Your task to perform on an android device: stop showing notifications on the lock screen Image 0: 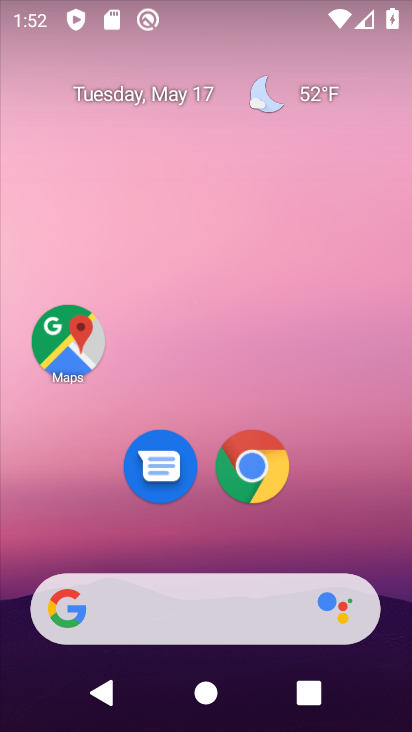
Step 0: drag from (87, 568) to (188, 159)
Your task to perform on an android device: stop showing notifications on the lock screen Image 1: 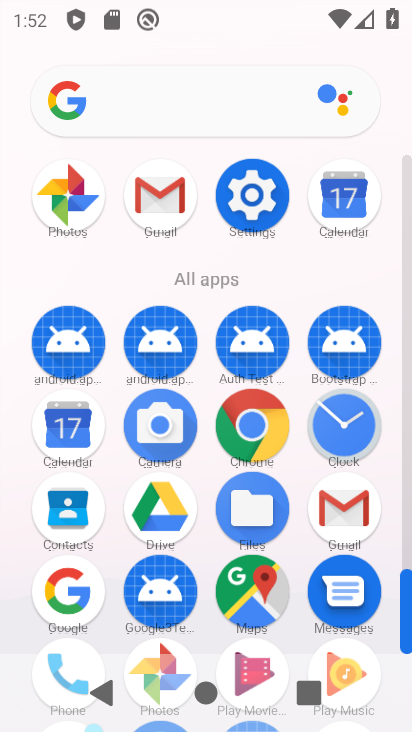
Step 1: drag from (150, 539) to (180, 360)
Your task to perform on an android device: stop showing notifications on the lock screen Image 2: 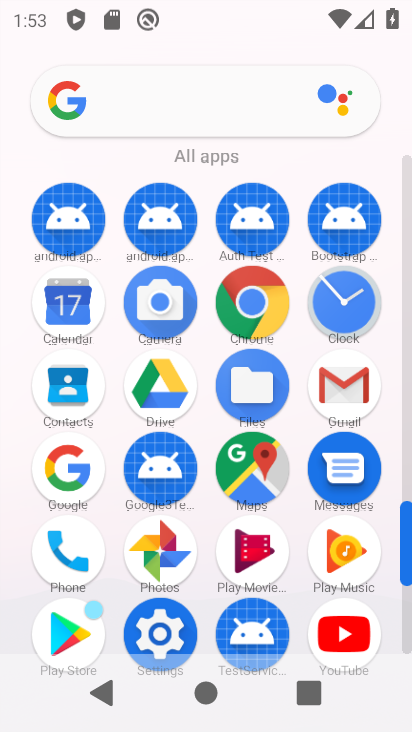
Step 2: click (158, 637)
Your task to perform on an android device: stop showing notifications on the lock screen Image 3: 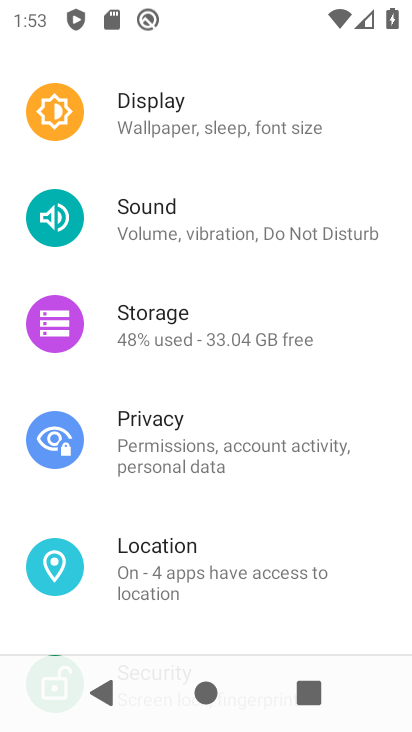
Step 3: drag from (211, 272) to (207, 538)
Your task to perform on an android device: stop showing notifications on the lock screen Image 4: 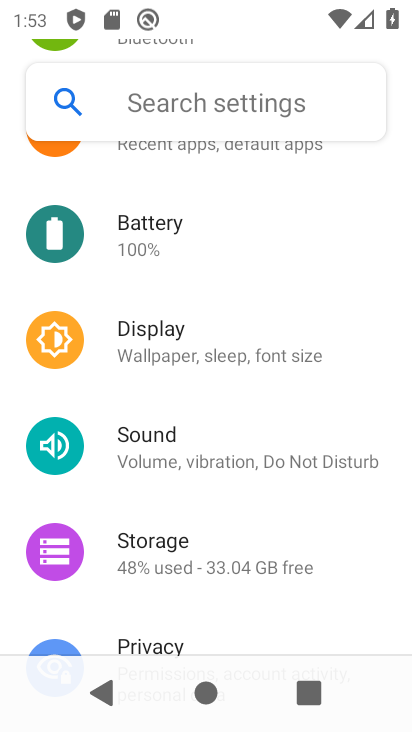
Step 4: drag from (207, 289) to (196, 525)
Your task to perform on an android device: stop showing notifications on the lock screen Image 5: 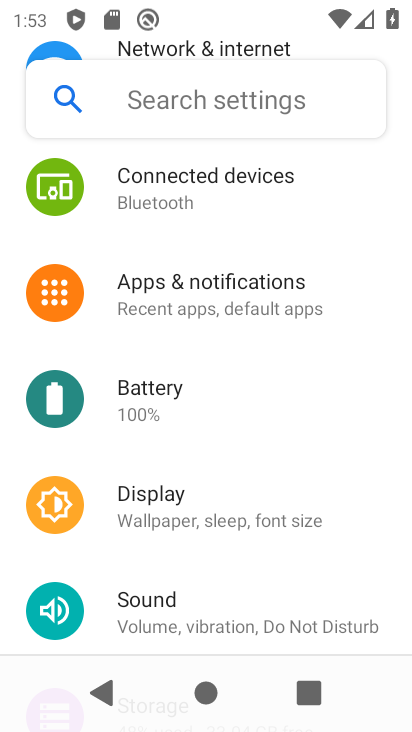
Step 5: click (238, 317)
Your task to perform on an android device: stop showing notifications on the lock screen Image 6: 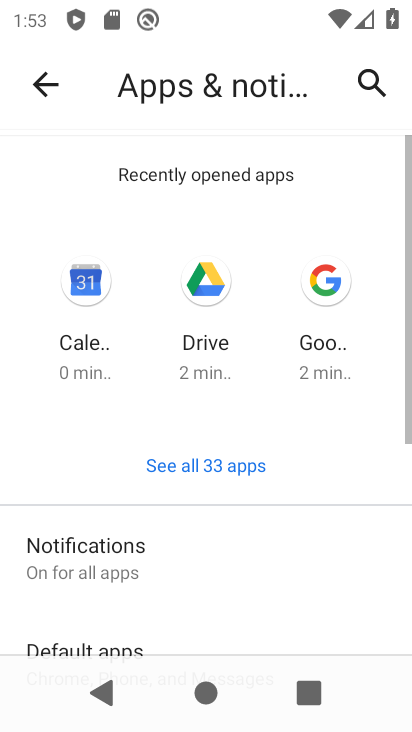
Step 6: drag from (220, 517) to (322, 274)
Your task to perform on an android device: stop showing notifications on the lock screen Image 7: 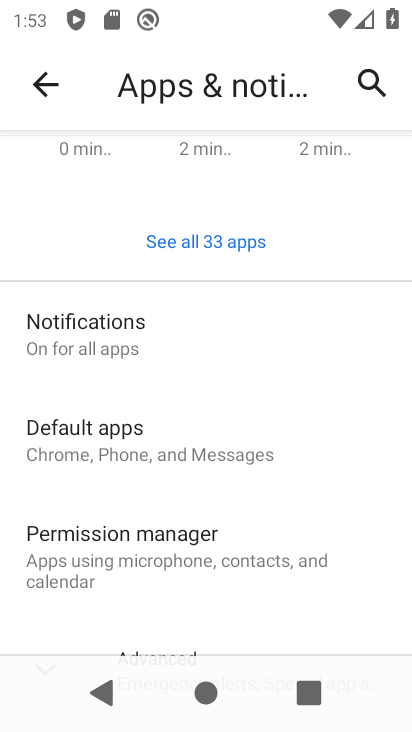
Step 7: click (204, 343)
Your task to perform on an android device: stop showing notifications on the lock screen Image 8: 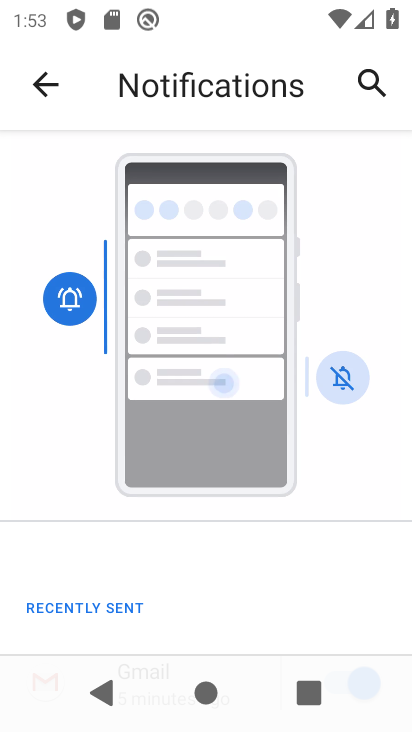
Step 8: drag from (238, 549) to (344, 111)
Your task to perform on an android device: stop showing notifications on the lock screen Image 9: 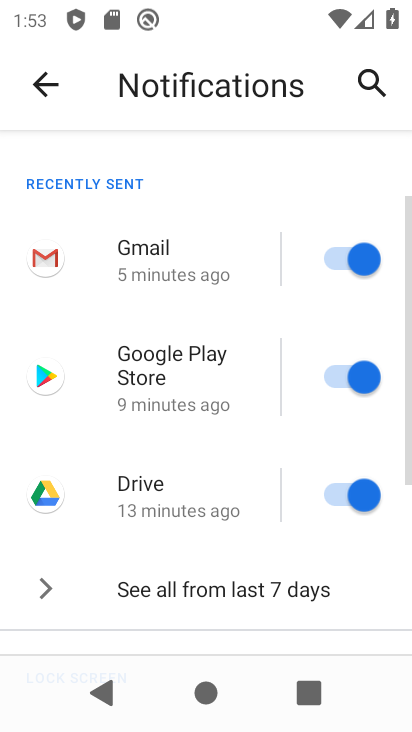
Step 9: drag from (203, 450) to (299, 161)
Your task to perform on an android device: stop showing notifications on the lock screen Image 10: 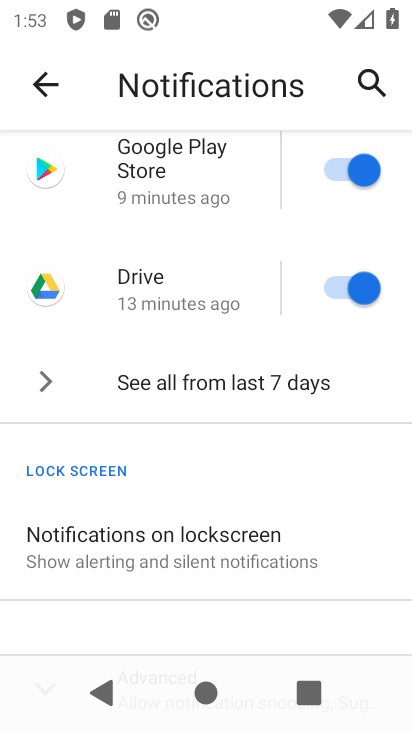
Step 10: drag from (217, 527) to (286, 263)
Your task to perform on an android device: stop showing notifications on the lock screen Image 11: 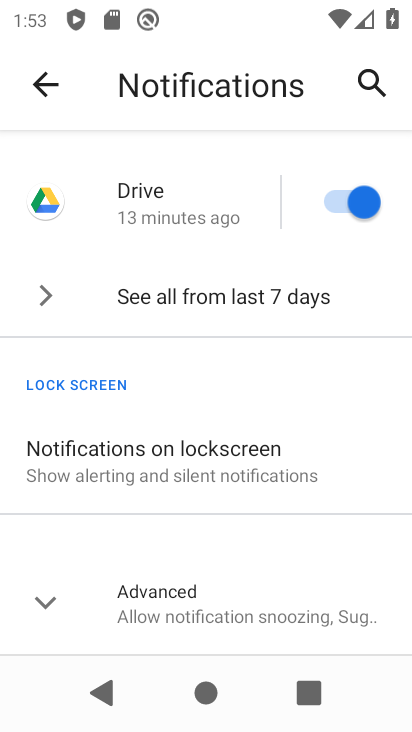
Step 11: drag from (246, 368) to (261, 332)
Your task to perform on an android device: stop showing notifications on the lock screen Image 12: 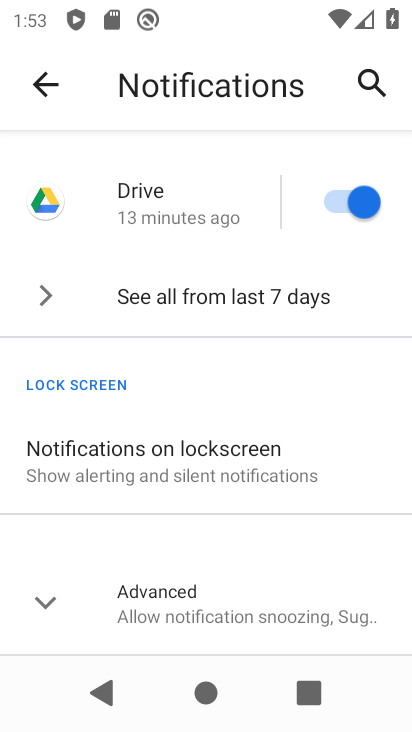
Step 12: click (197, 472)
Your task to perform on an android device: stop showing notifications on the lock screen Image 13: 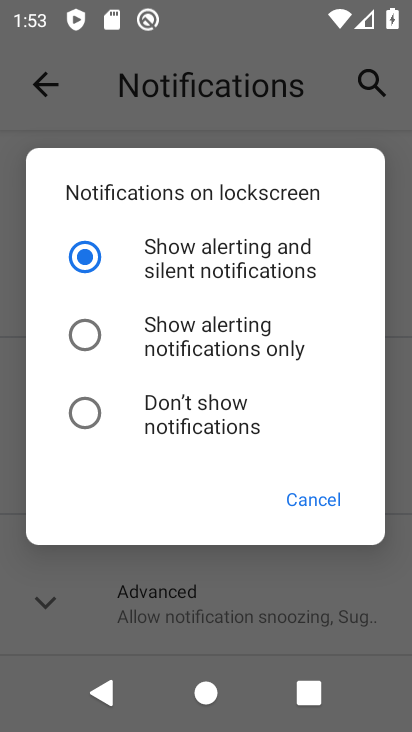
Step 13: click (158, 414)
Your task to perform on an android device: stop showing notifications on the lock screen Image 14: 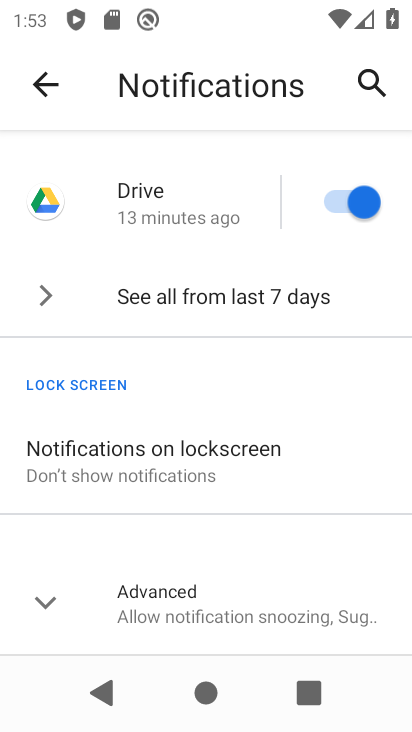
Step 14: task complete